Your task to perform on an android device: open chrome and create a bookmark for the current page Image 0: 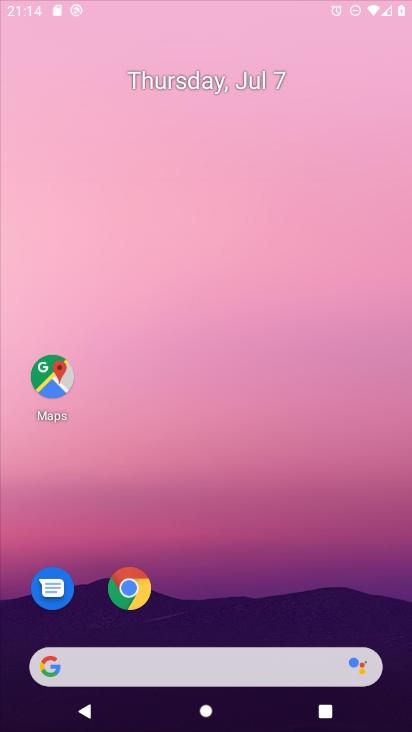
Step 0: drag from (248, 555) to (251, 202)
Your task to perform on an android device: open chrome and create a bookmark for the current page Image 1: 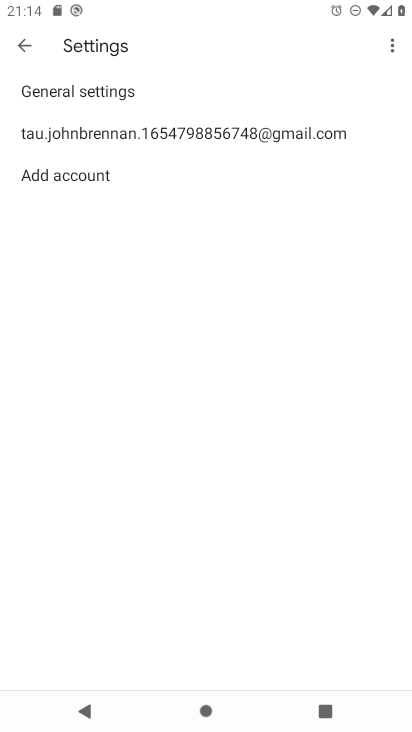
Step 1: press home button
Your task to perform on an android device: open chrome and create a bookmark for the current page Image 2: 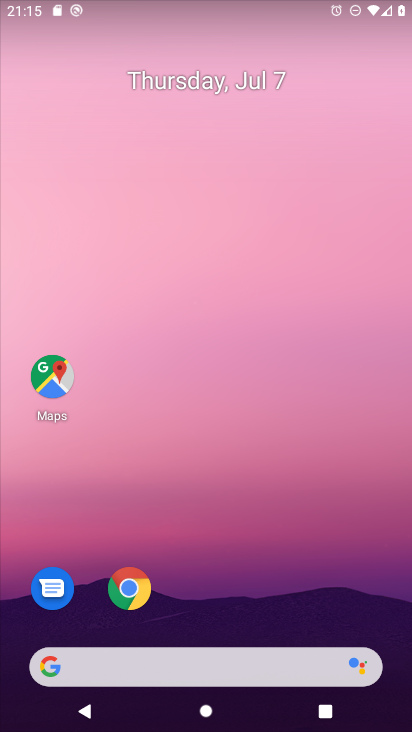
Step 2: drag from (180, 629) to (193, 308)
Your task to perform on an android device: open chrome and create a bookmark for the current page Image 3: 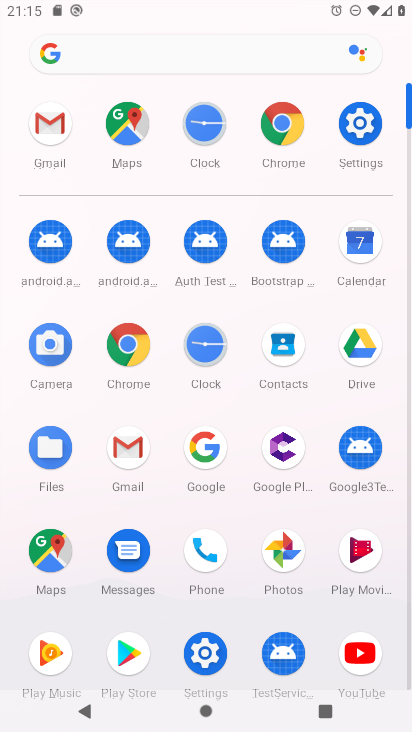
Step 3: click (293, 126)
Your task to perform on an android device: open chrome and create a bookmark for the current page Image 4: 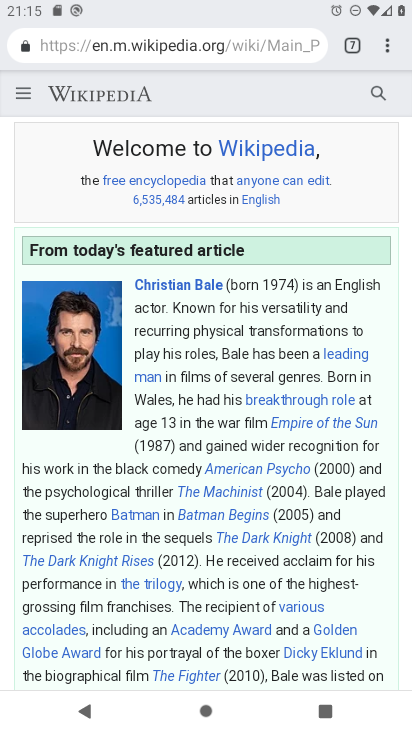
Step 4: click (384, 42)
Your task to perform on an android device: open chrome and create a bookmark for the current page Image 5: 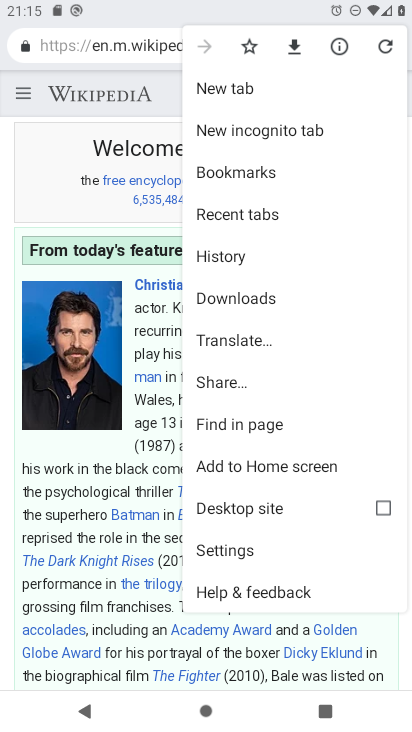
Step 5: click (257, 48)
Your task to perform on an android device: open chrome and create a bookmark for the current page Image 6: 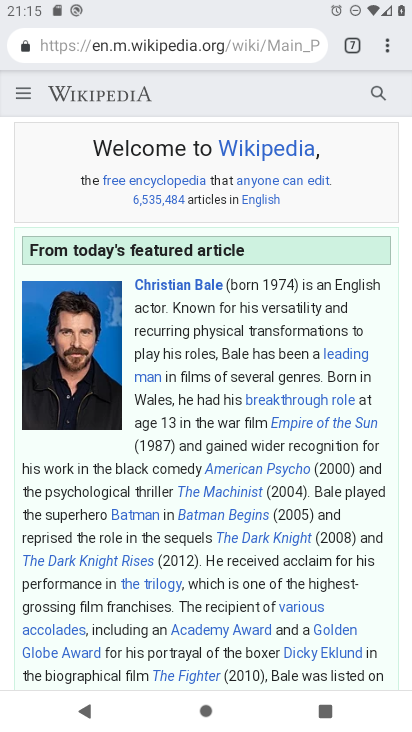
Step 6: task complete